Your task to perform on an android device: Clear the shopping cart on amazon. Add macbook to the cart on amazon, then select checkout. Image 0: 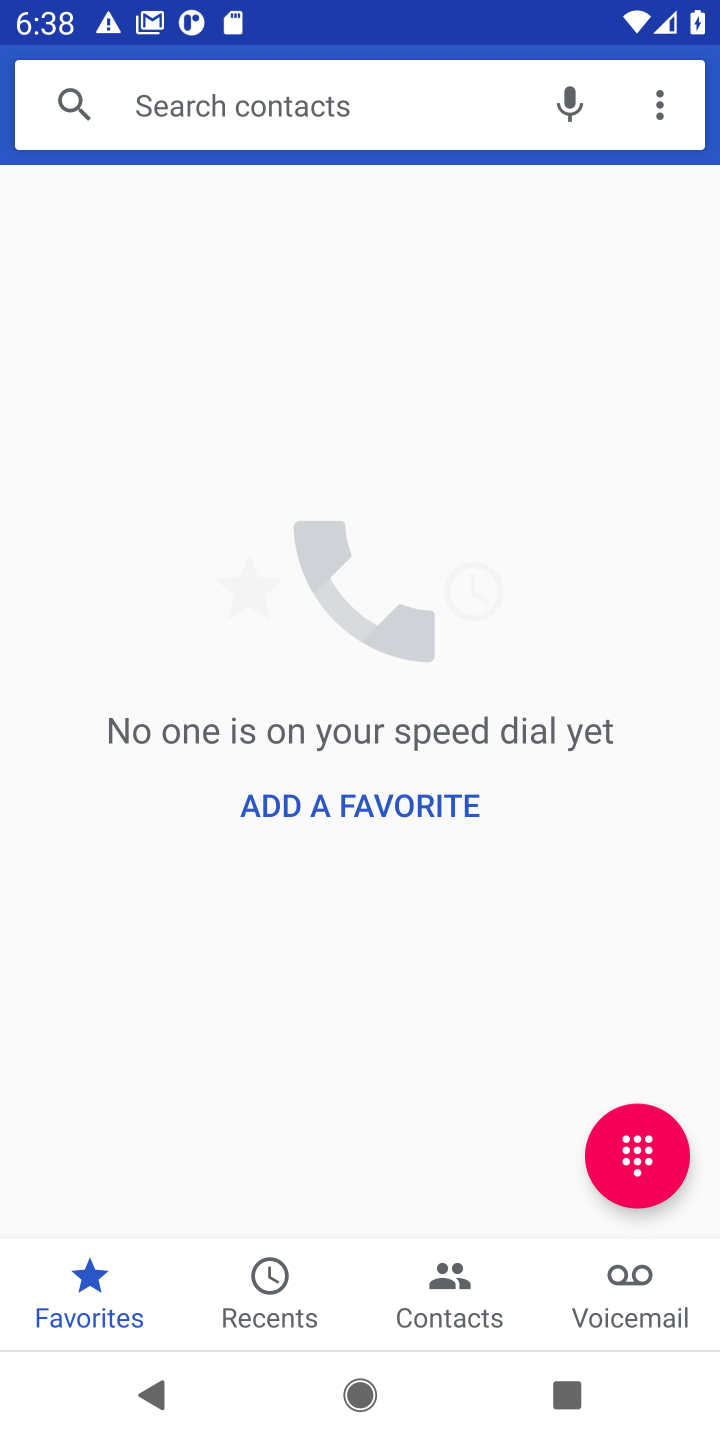
Step 0: press home button
Your task to perform on an android device: Clear the shopping cart on amazon. Add macbook to the cart on amazon, then select checkout. Image 1: 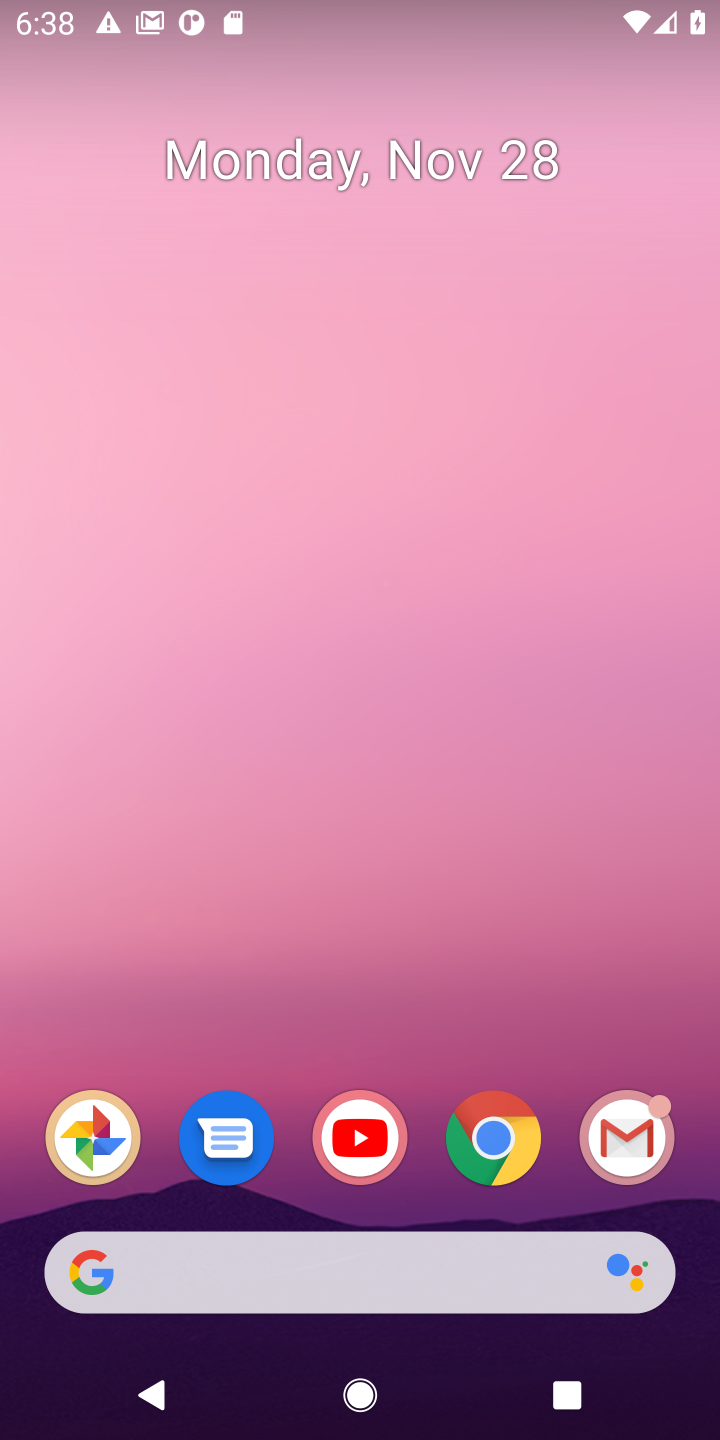
Step 1: click (503, 1136)
Your task to perform on an android device: Clear the shopping cart on amazon. Add macbook to the cart on amazon, then select checkout. Image 2: 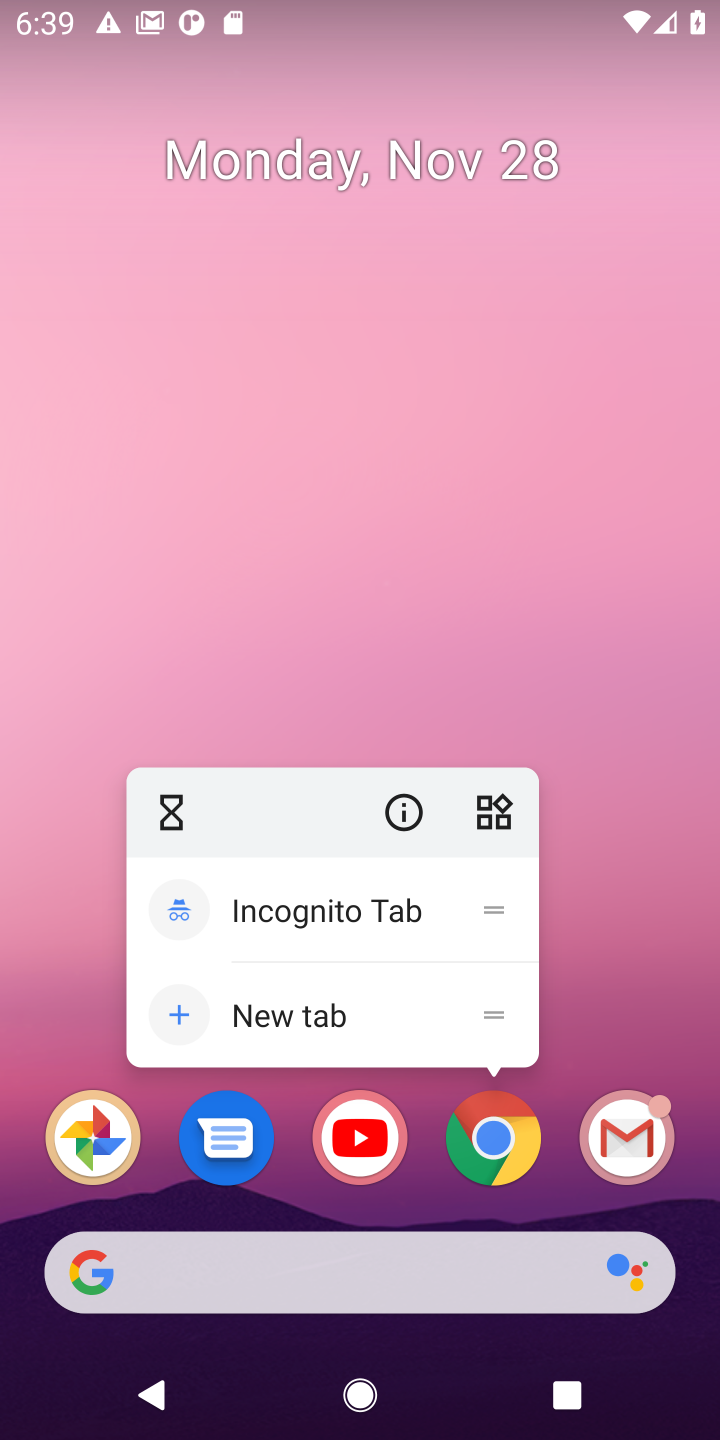
Step 2: click (503, 1136)
Your task to perform on an android device: Clear the shopping cart on amazon. Add macbook to the cart on amazon, then select checkout. Image 3: 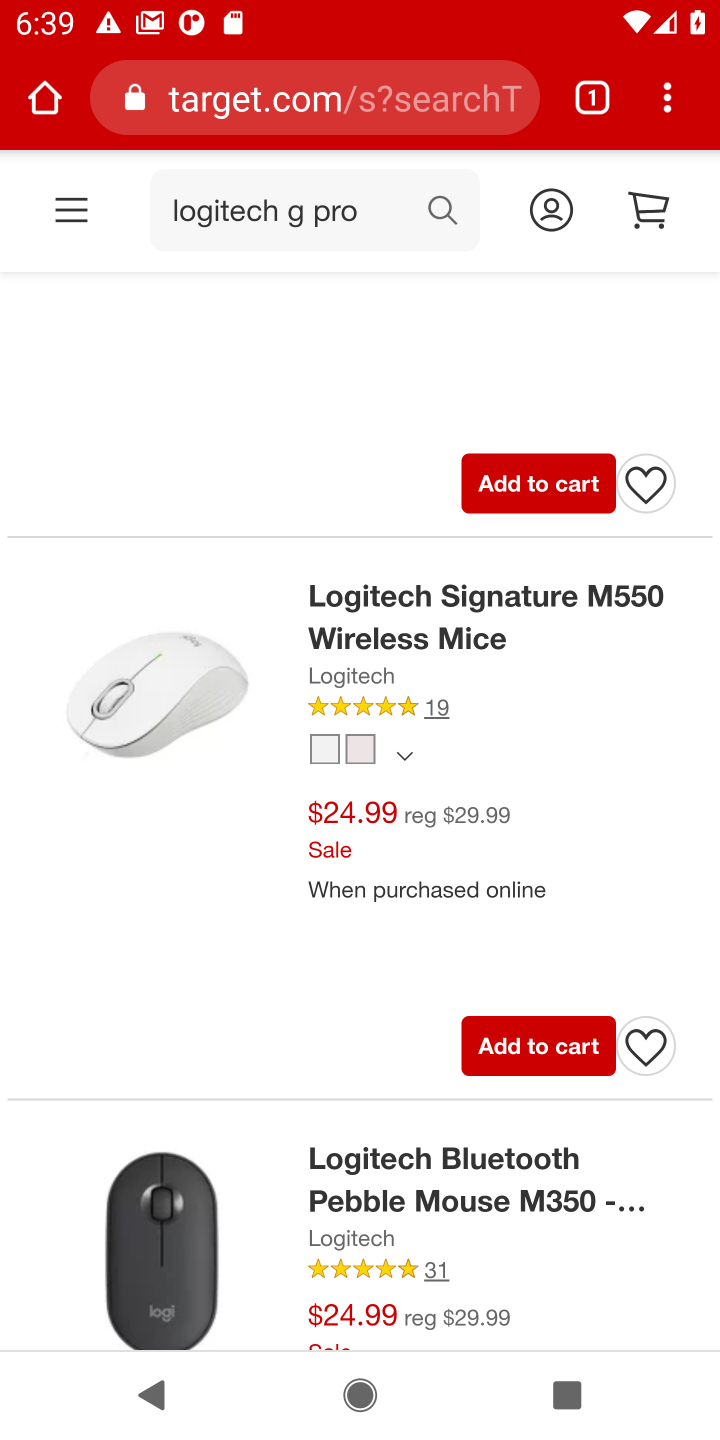
Step 3: click (308, 112)
Your task to perform on an android device: Clear the shopping cart on amazon. Add macbook to the cart on amazon, then select checkout. Image 4: 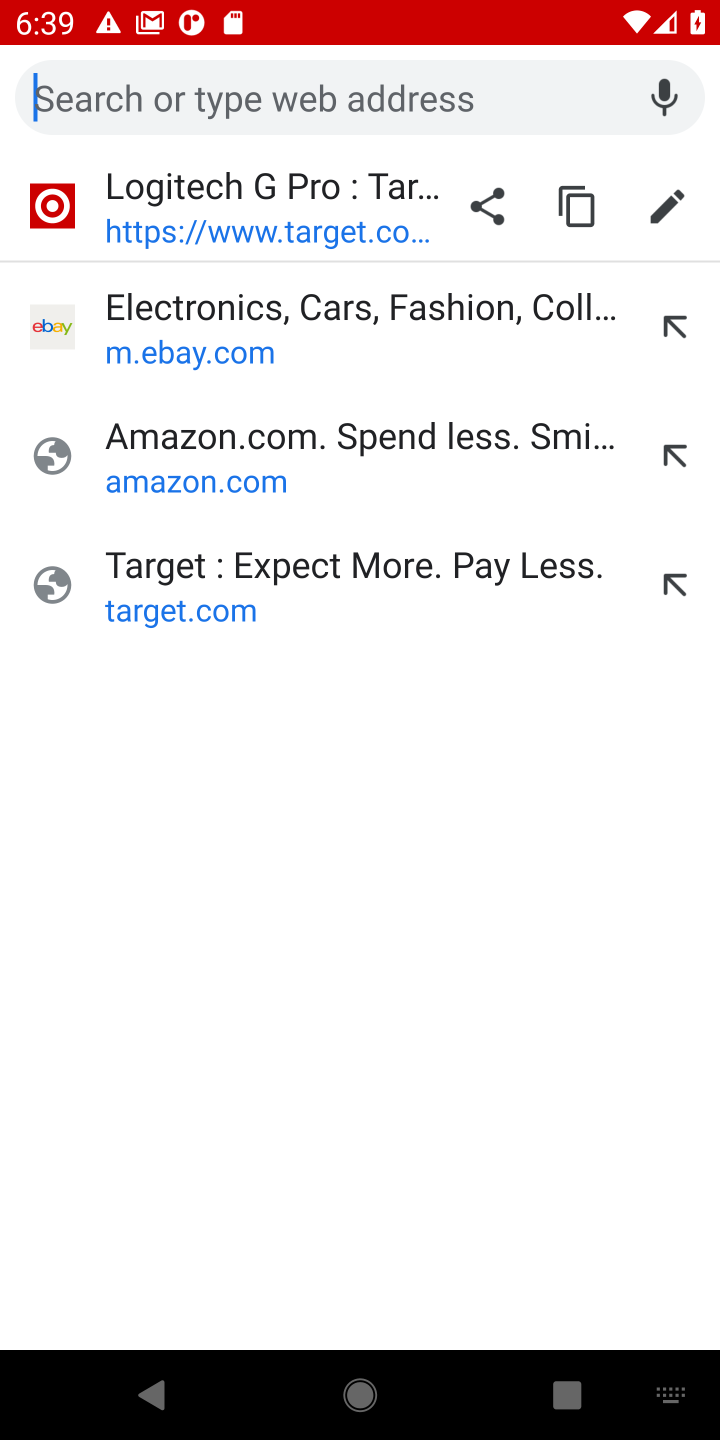
Step 4: click (147, 454)
Your task to perform on an android device: Clear the shopping cart on amazon. Add macbook to the cart on amazon, then select checkout. Image 5: 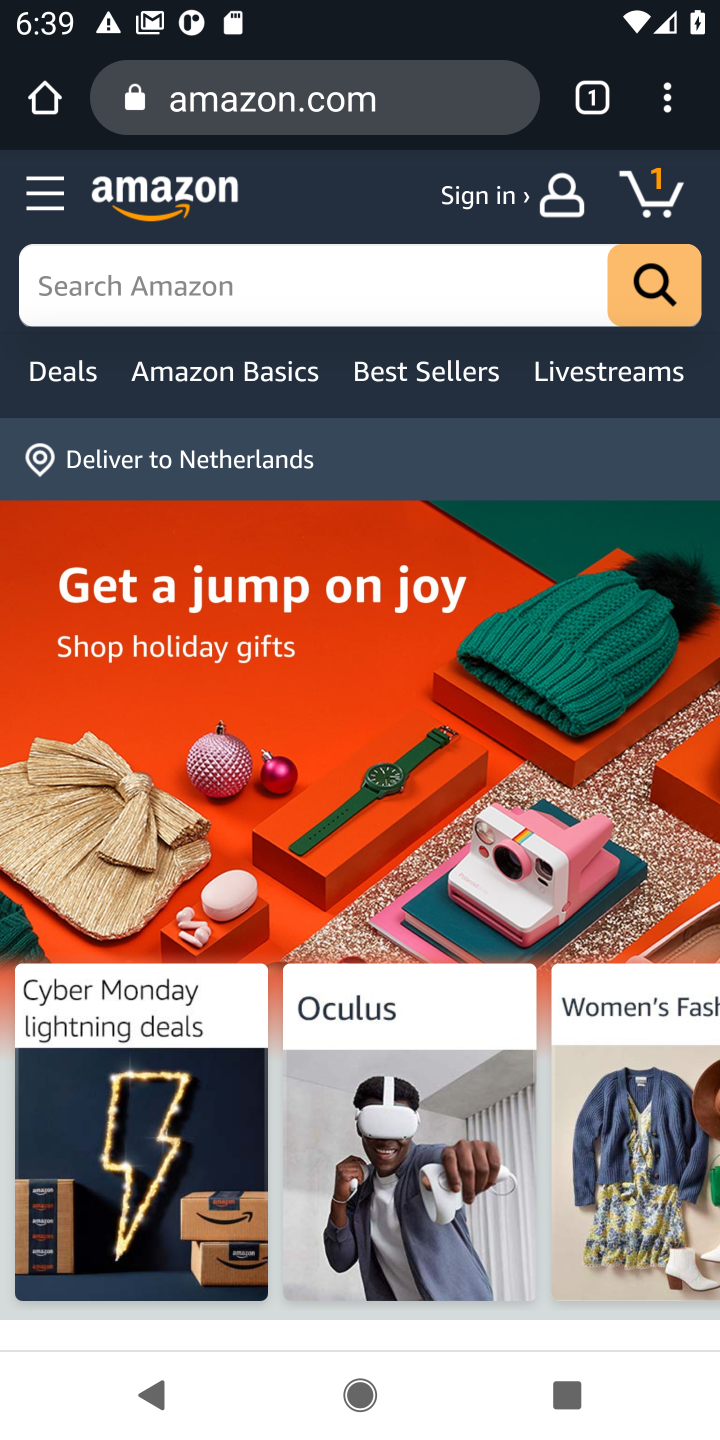
Step 5: click (654, 192)
Your task to perform on an android device: Clear the shopping cart on amazon. Add macbook to the cart on amazon, then select checkout. Image 6: 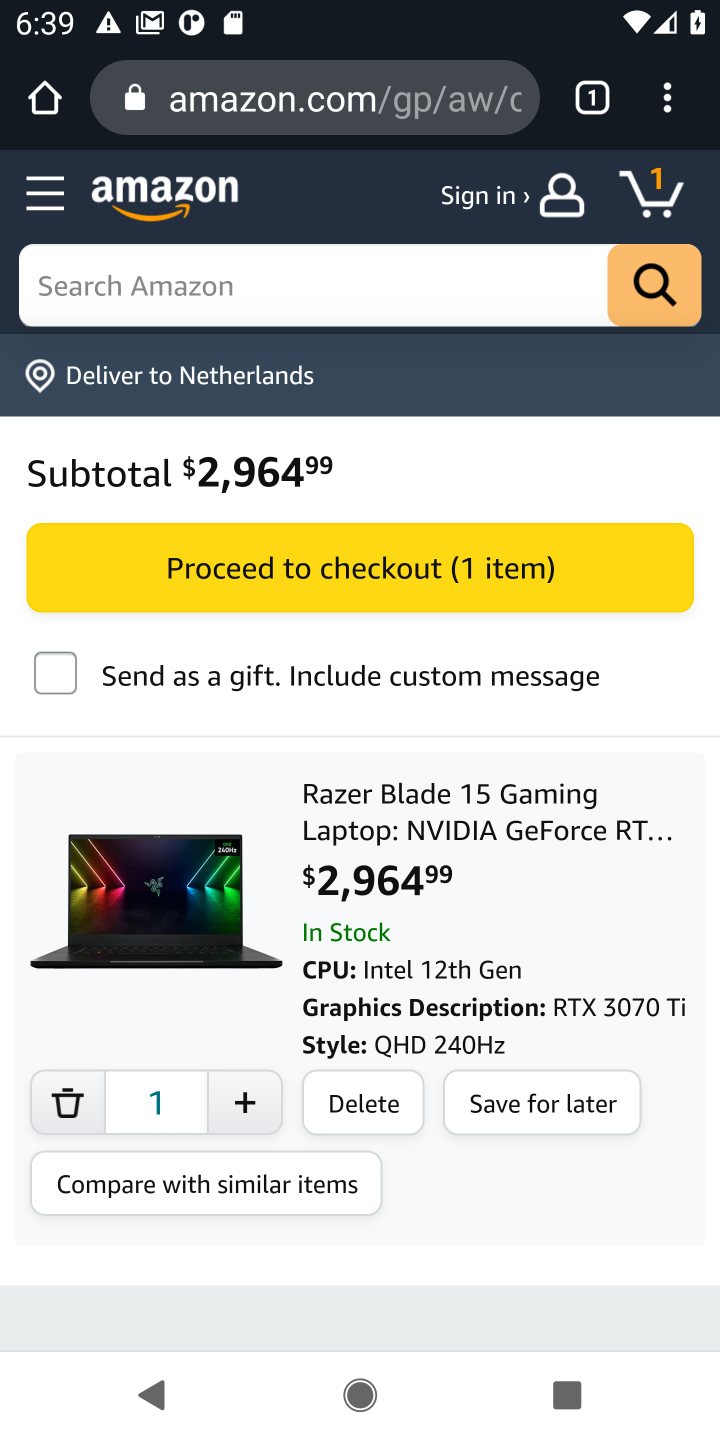
Step 6: click (355, 1096)
Your task to perform on an android device: Clear the shopping cart on amazon. Add macbook to the cart on amazon, then select checkout. Image 7: 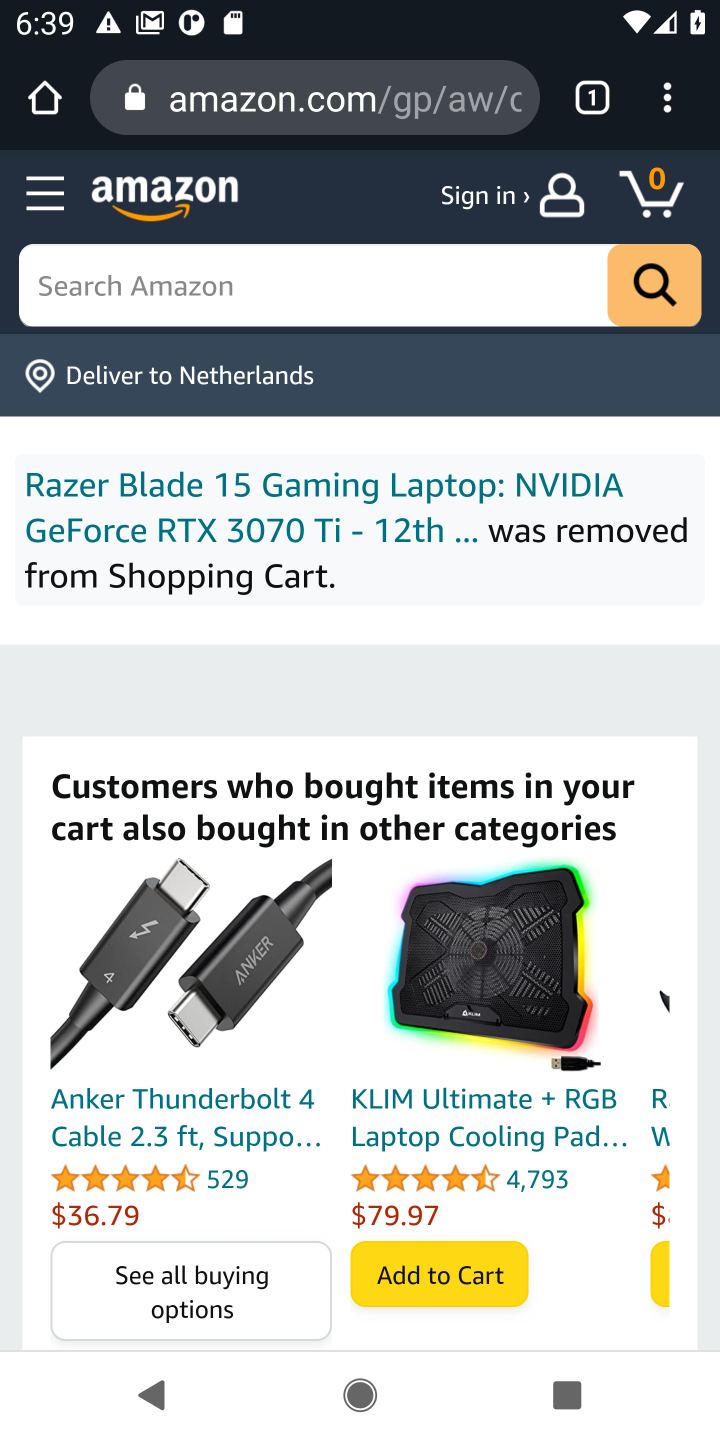
Step 7: click (115, 289)
Your task to perform on an android device: Clear the shopping cart on amazon. Add macbook to the cart on amazon, then select checkout. Image 8: 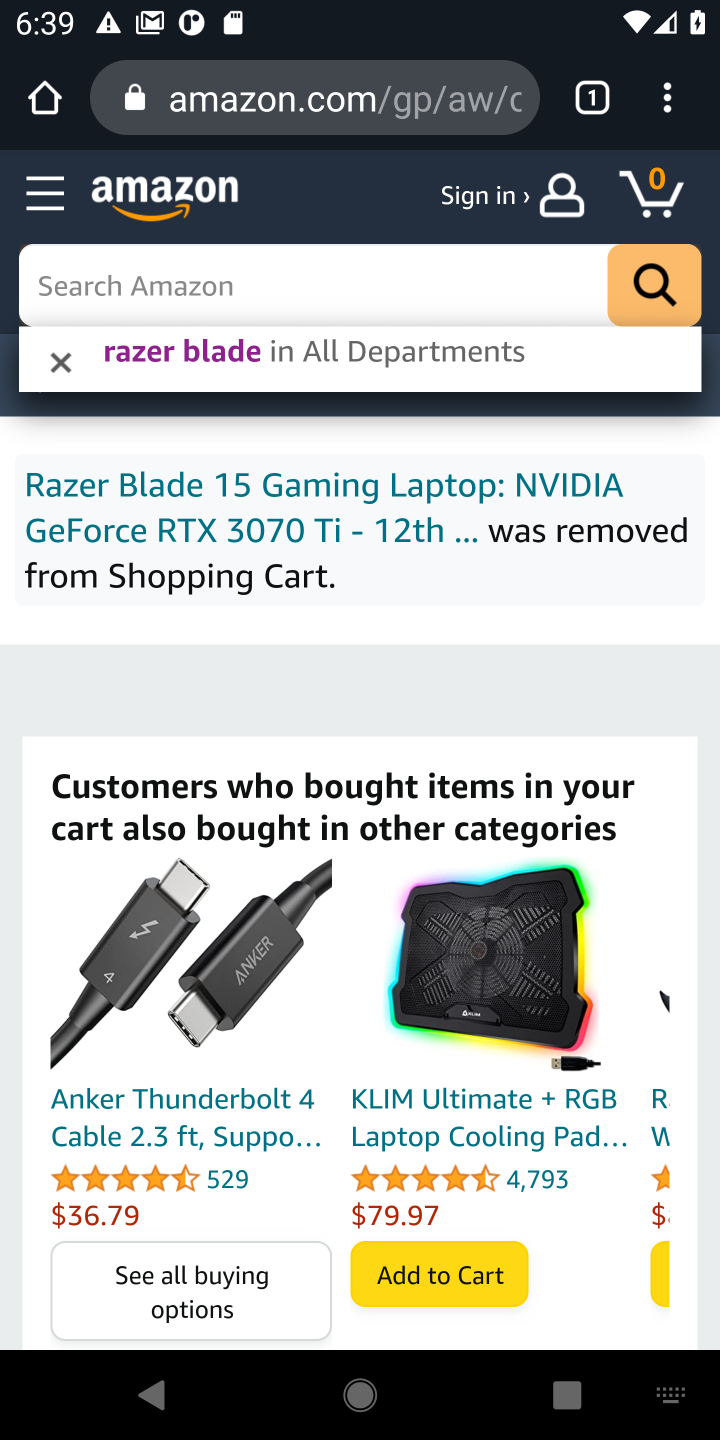
Step 8: type "macbook "
Your task to perform on an android device: Clear the shopping cart on amazon. Add macbook to the cart on amazon, then select checkout. Image 9: 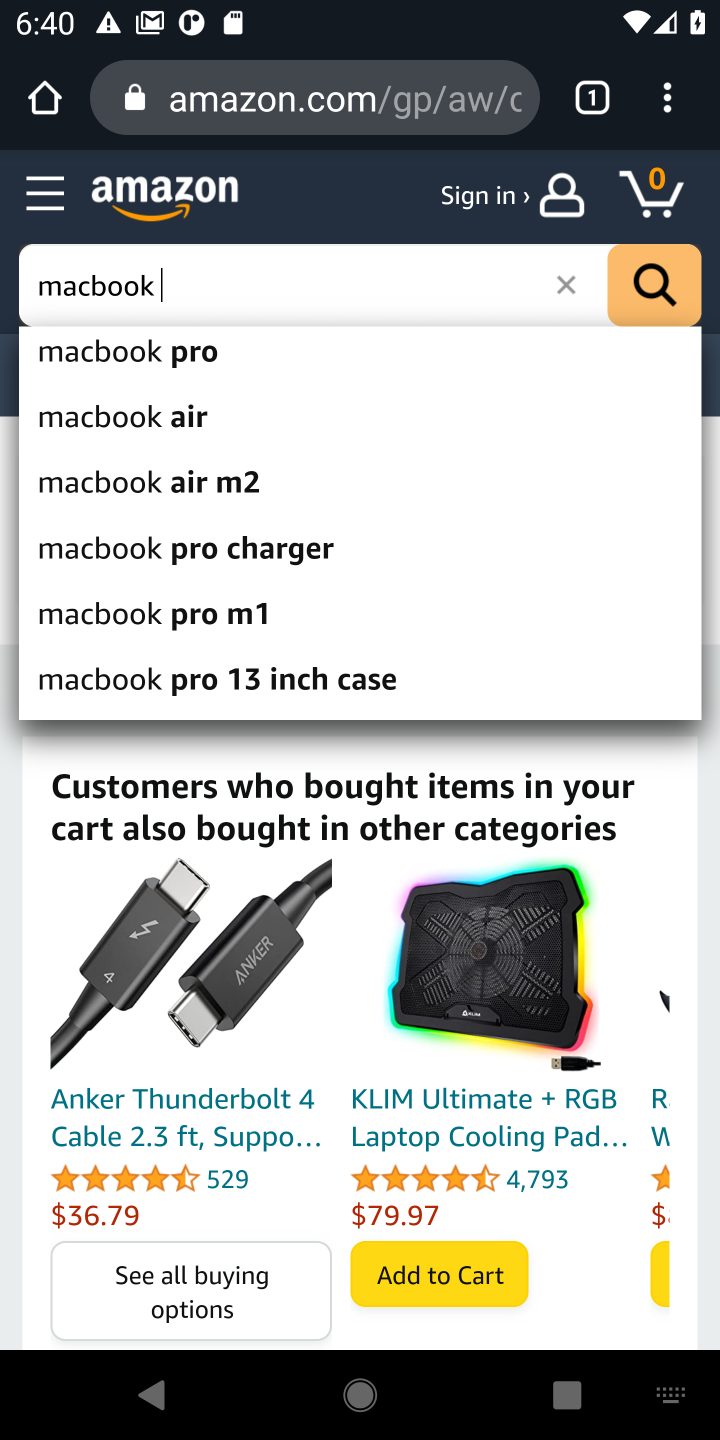
Step 9: click (650, 280)
Your task to perform on an android device: Clear the shopping cart on amazon. Add macbook to the cart on amazon, then select checkout. Image 10: 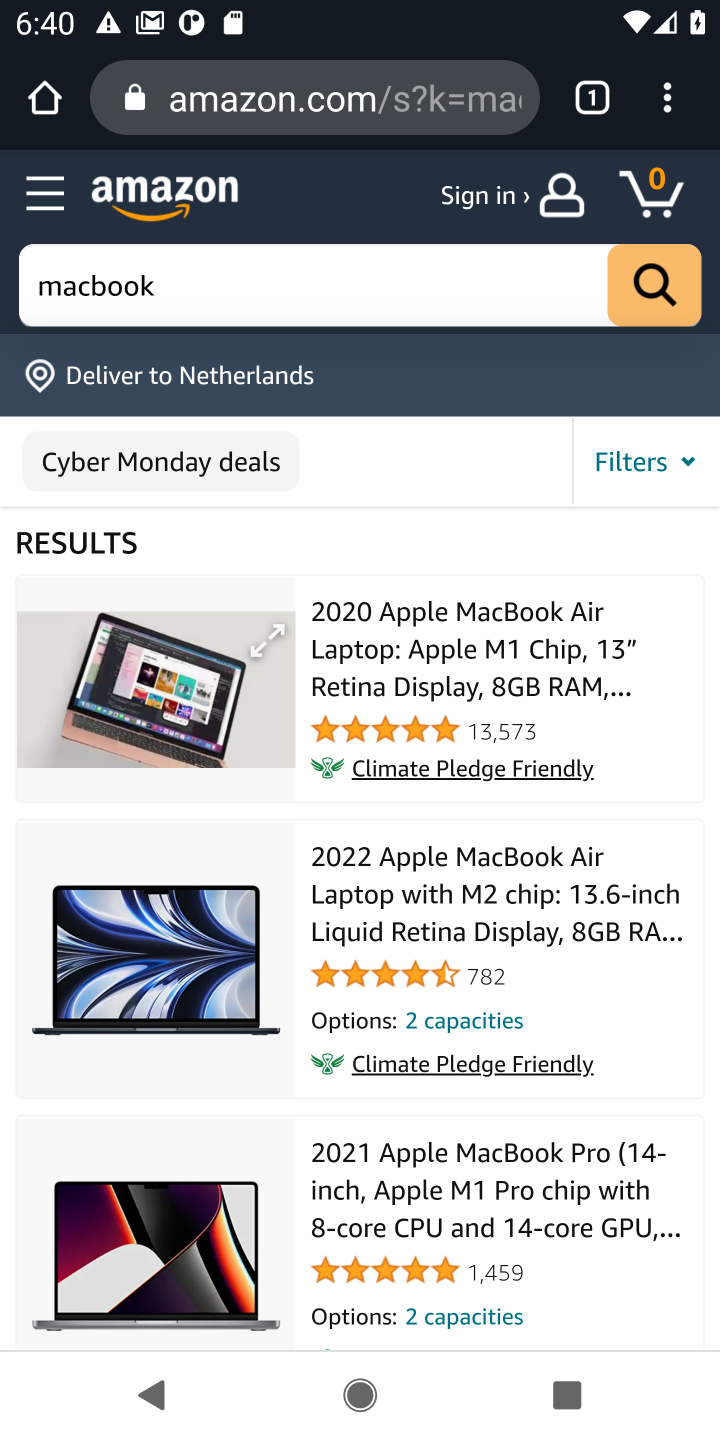
Step 10: drag from (679, 1071) to (657, 576)
Your task to perform on an android device: Clear the shopping cart on amazon. Add macbook to the cart on amazon, then select checkout. Image 11: 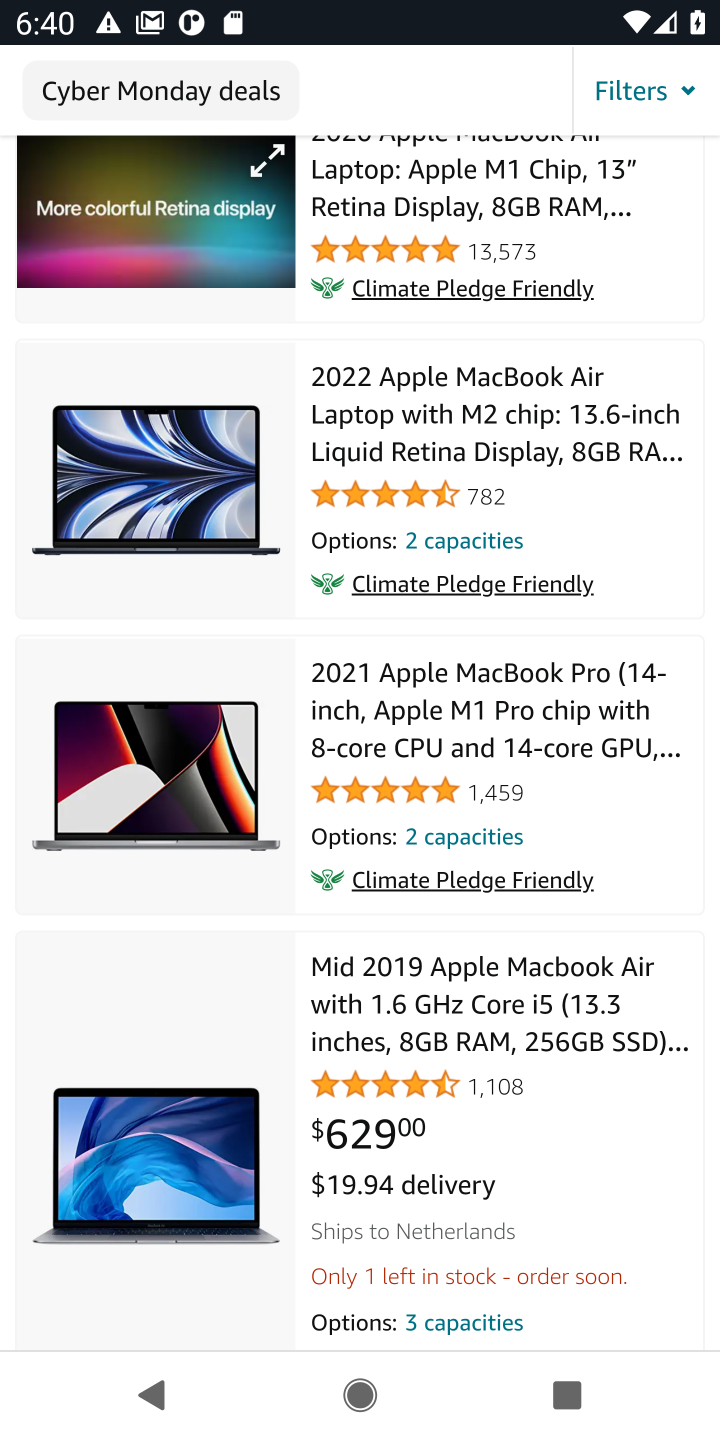
Step 11: click (417, 1047)
Your task to perform on an android device: Clear the shopping cart on amazon. Add macbook to the cart on amazon, then select checkout. Image 12: 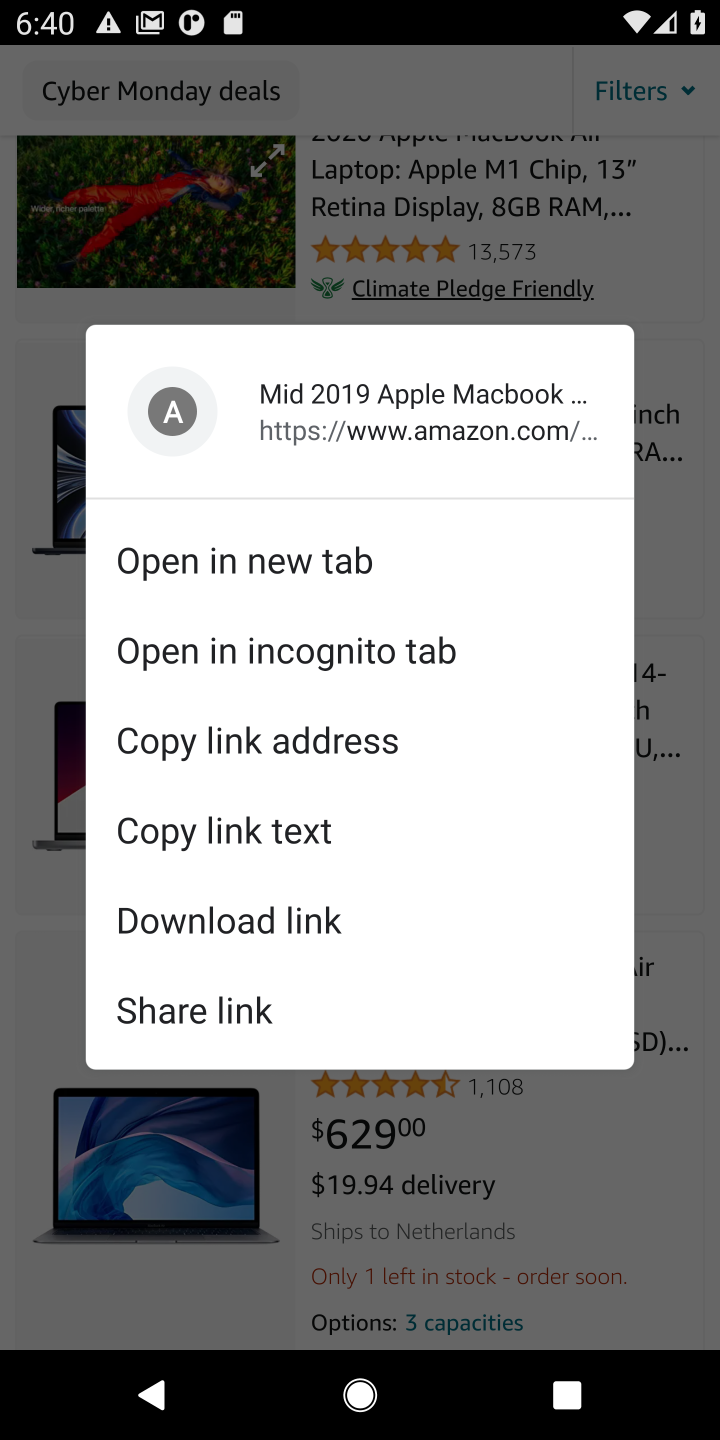
Step 12: click (717, 1072)
Your task to perform on an android device: Clear the shopping cart on amazon. Add macbook to the cart on amazon, then select checkout. Image 13: 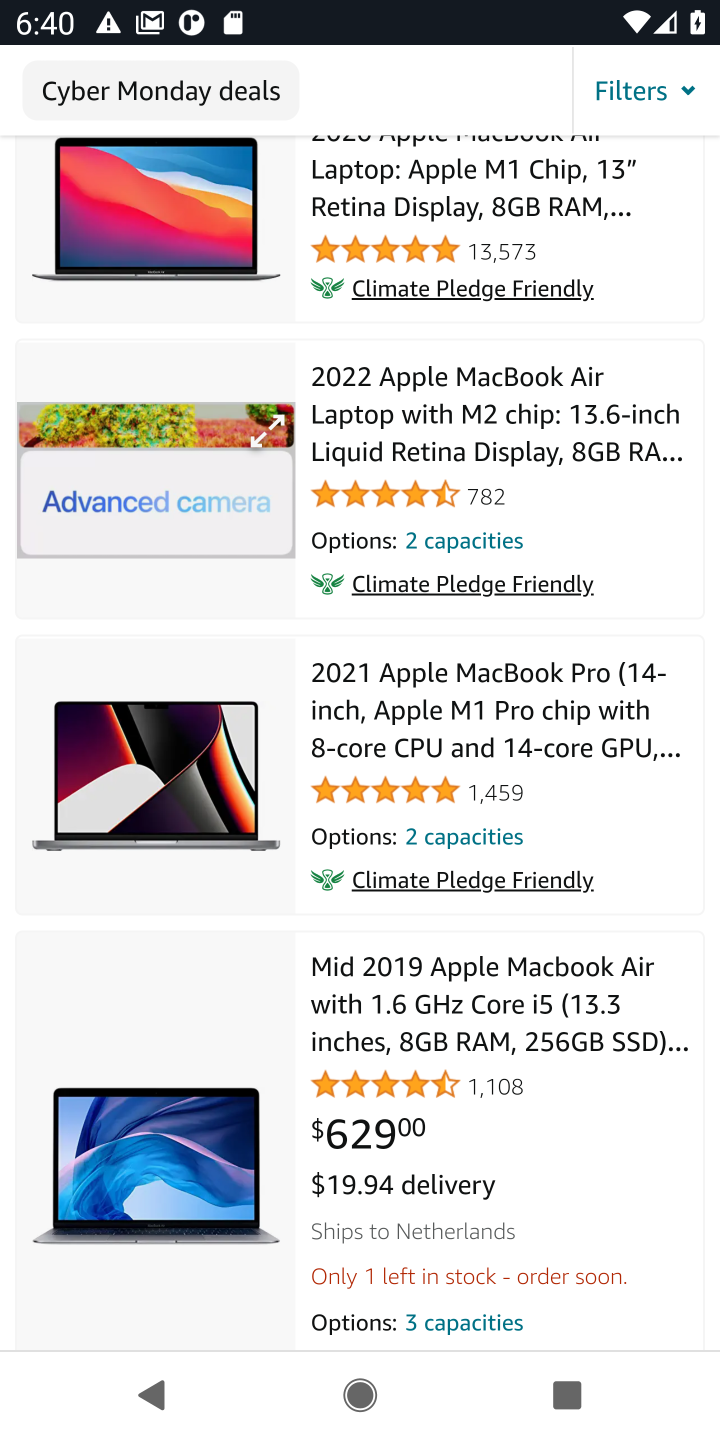
Step 13: click (505, 1025)
Your task to perform on an android device: Clear the shopping cart on amazon. Add macbook to the cart on amazon, then select checkout. Image 14: 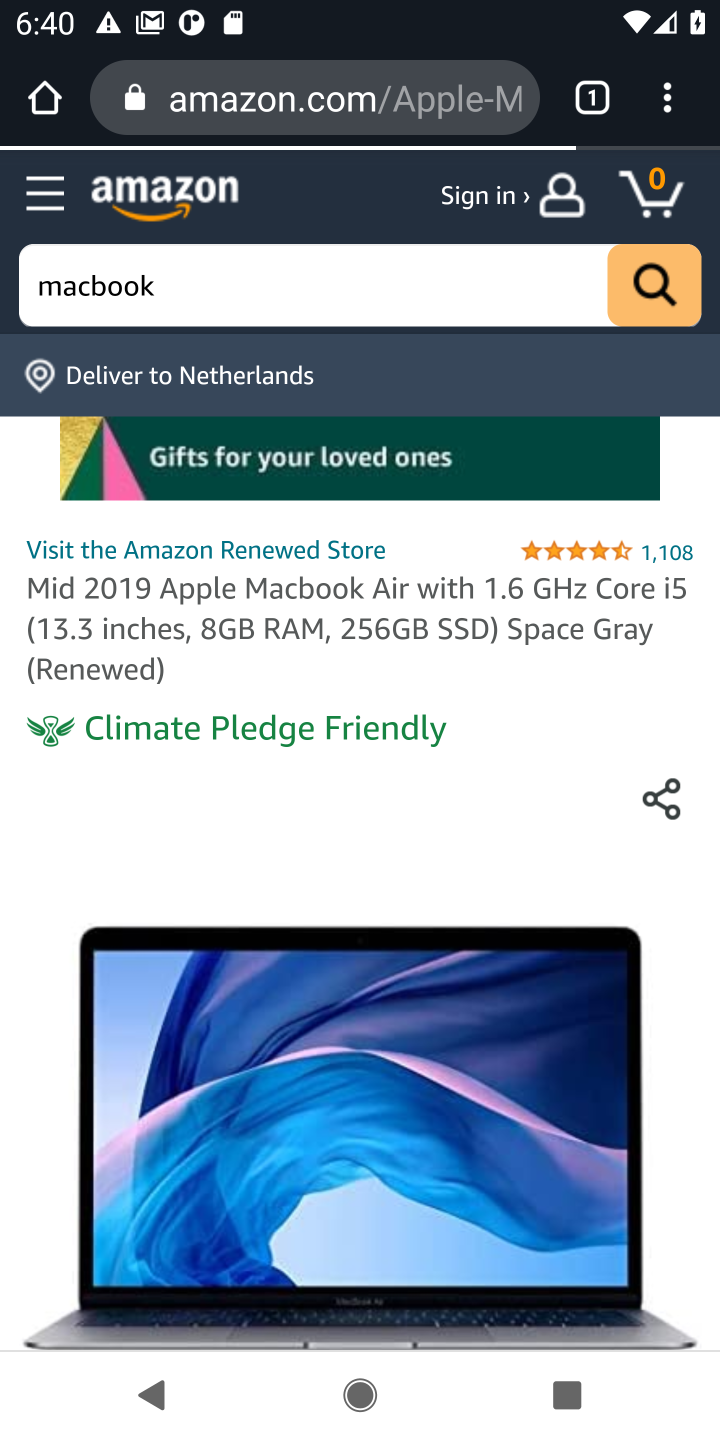
Step 14: drag from (503, 1017) to (469, 538)
Your task to perform on an android device: Clear the shopping cart on amazon. Add macbook to the cart on amazon, then select checkout. Image 15: 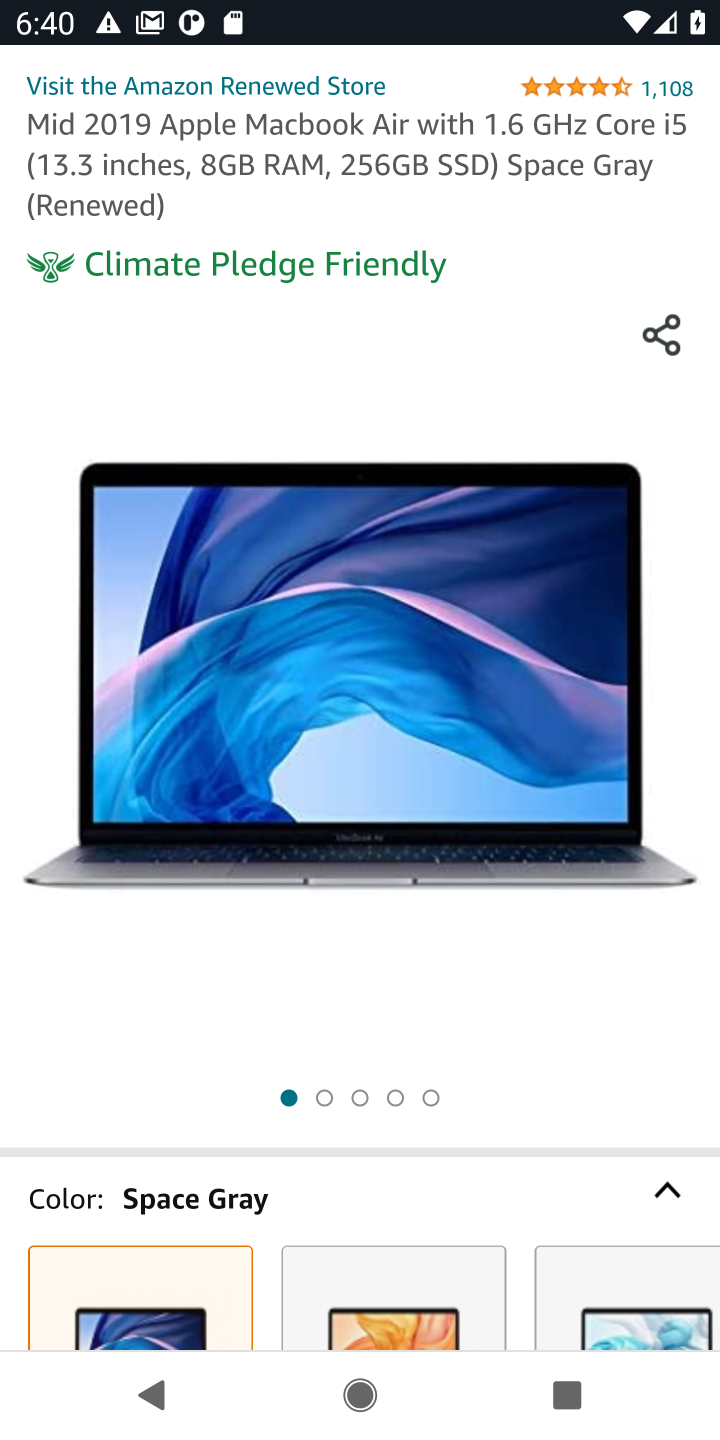
Step 15: drag from (540, 1031) to (471, 426)
Your task to perform on an android device: Clear the shopping cart on amazon. Add macbook to the cart on amazon, then select checkout. Image 16: 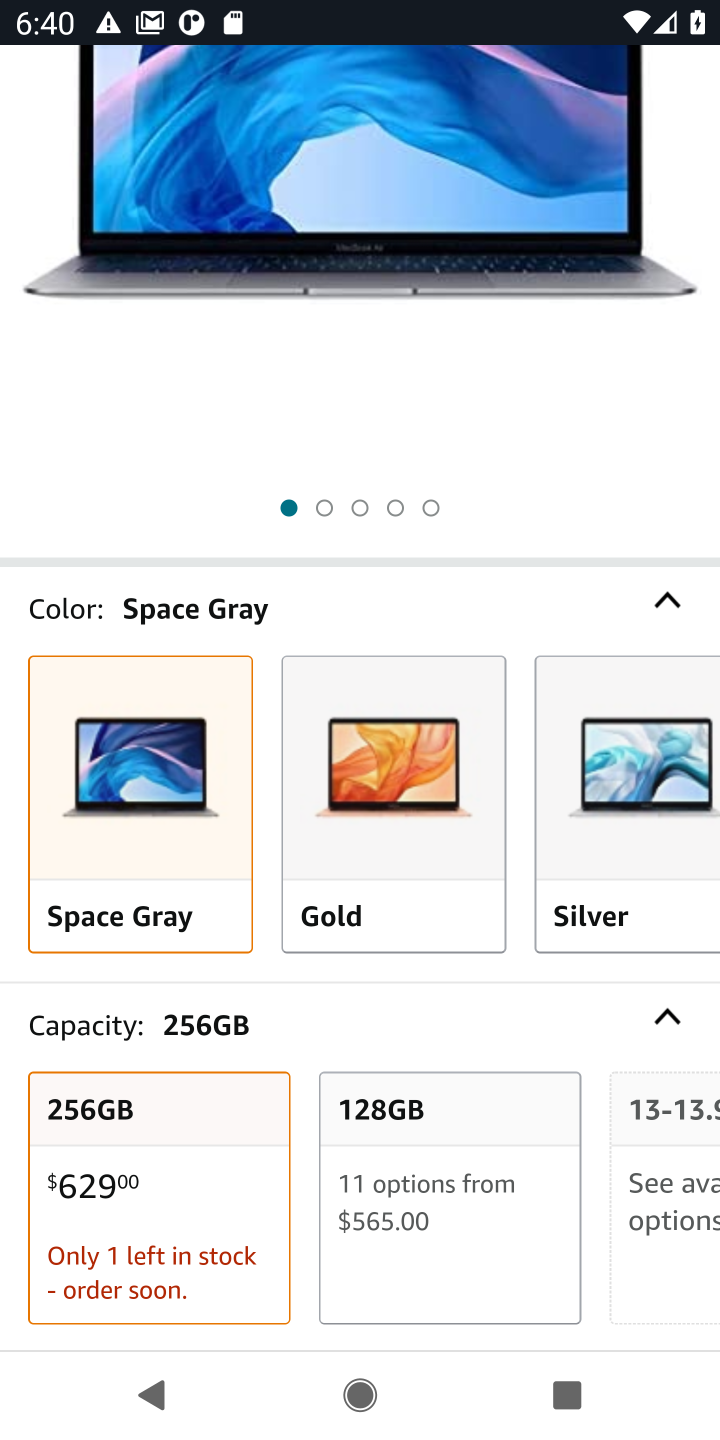
Step 16: drag from (544, 1065) to (556, 460)
Your task to perform on an android device: Clear the shopping cart on amazon. Add macbook to the cart on amazon, then select checkout. Image 17: 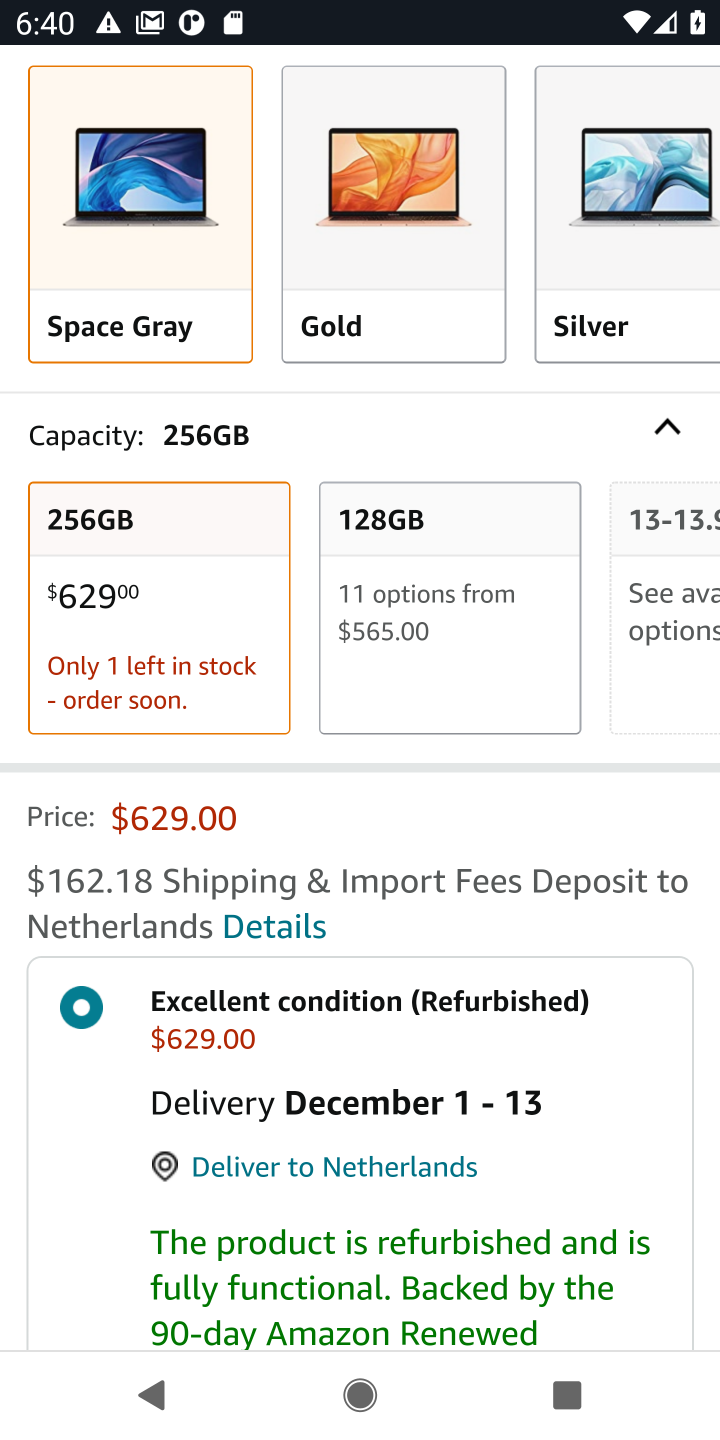
Step 17: drag from (440, 1113) to (446, 466)
Your task to perform on an android device: Clear the shopping cart on amazon. Add macbook to the cart on amazon, then select checkout. Image 18: 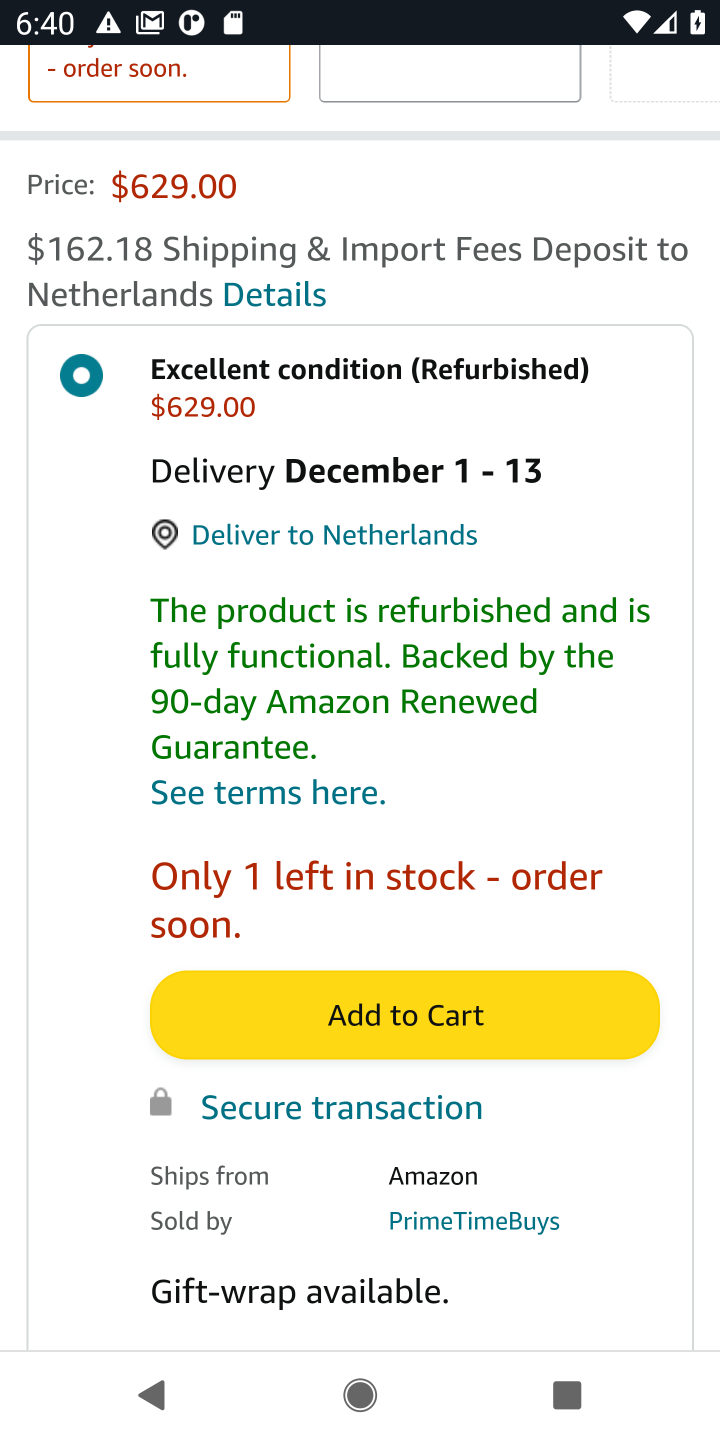
Step 18: click (408, 1031)
Your task to perform on an android device: Clear the shopping cart on amazon. Add macbook to the cart on amazon, then select checkout. Image 19: 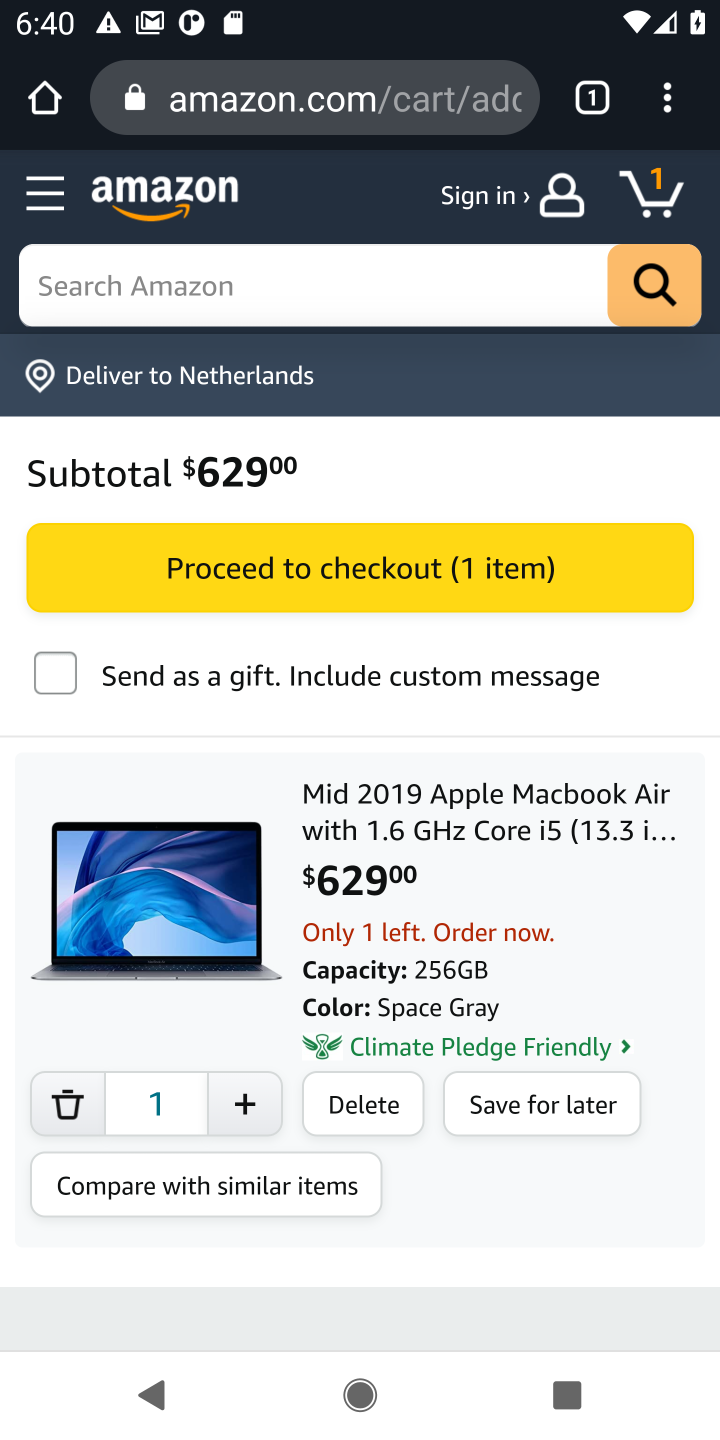
Step 19: click (362, 582)
Your task to perform on an android device: Clear the shopping cart on amazon. Add macbook to the cart on amazon, then select checkout. Image 20: 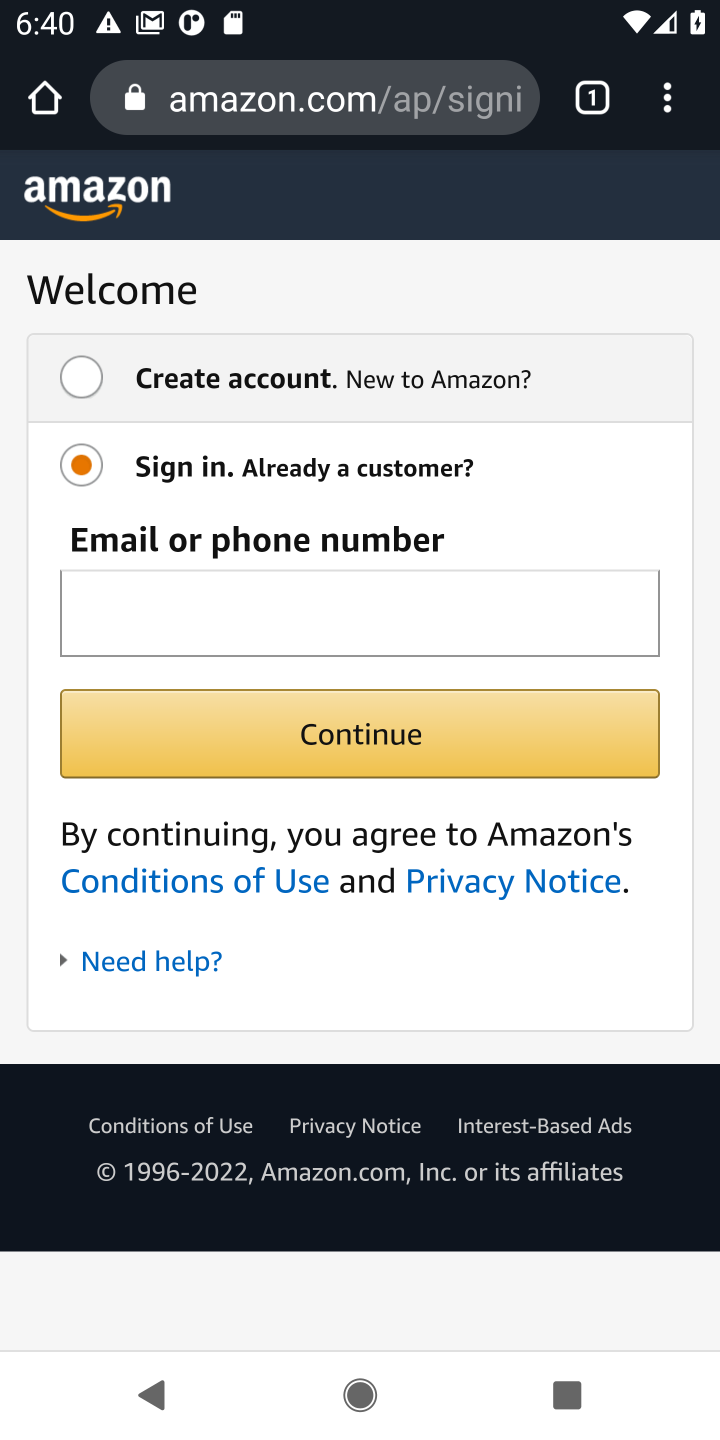
Step 20: task complete